Your task to perform on an android device: set the timer Image 0: 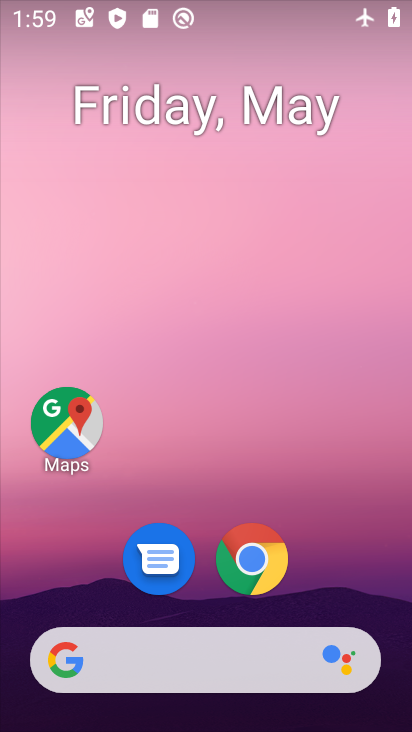
Step 0: drag from (325, 508) to (358, 153)
Your task to perform on an android device: set the timer Image 1: 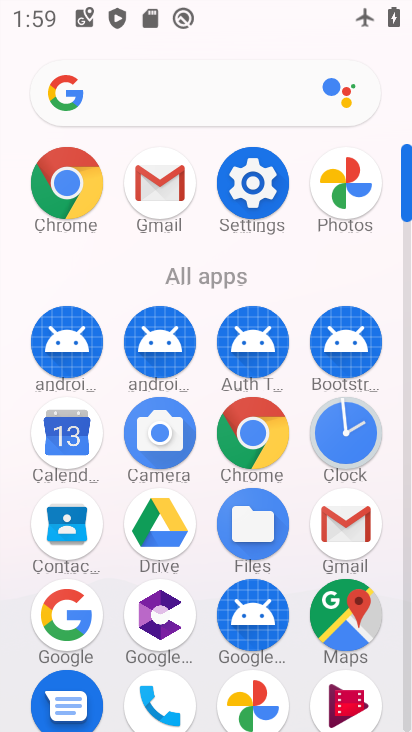
Step 1: click (350, 444)
Your task to perform on an android device: set the timer Image 2: 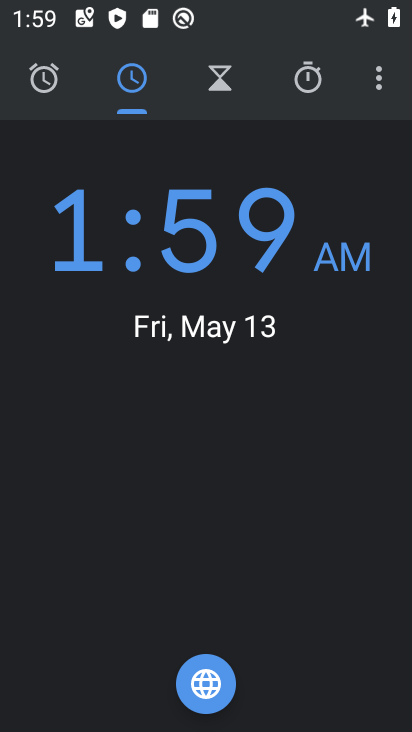
Step 2: click (222, 88)
Your task to perform on an android device: set the timer Image 3: 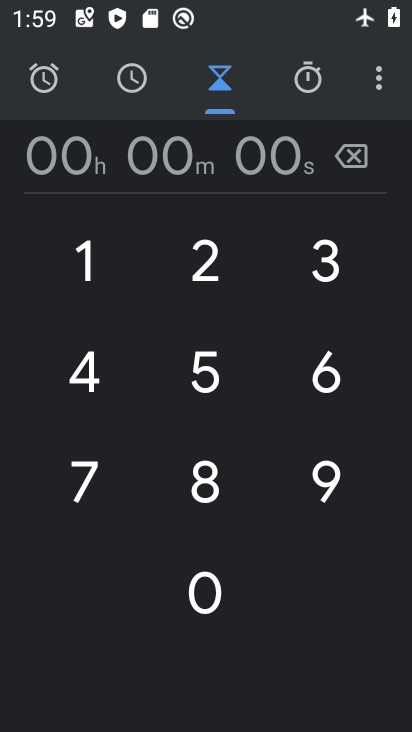
Step 3: click (201, 382)
Your task to perform on an android device: set the timer Image 4: 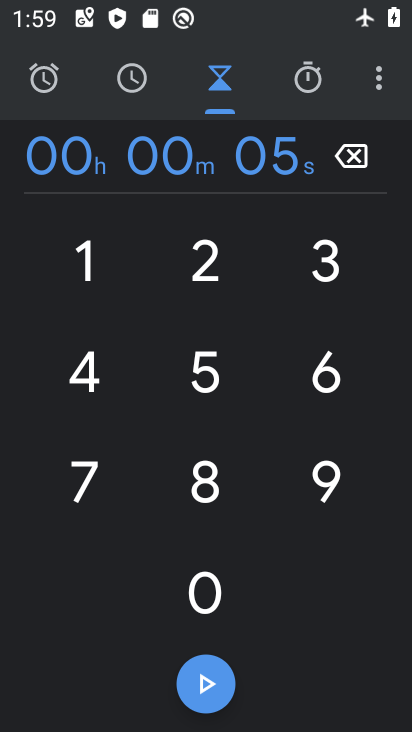
Step 4: click (313, 289)
Your task to perform on an android device: set the timer Image 5: 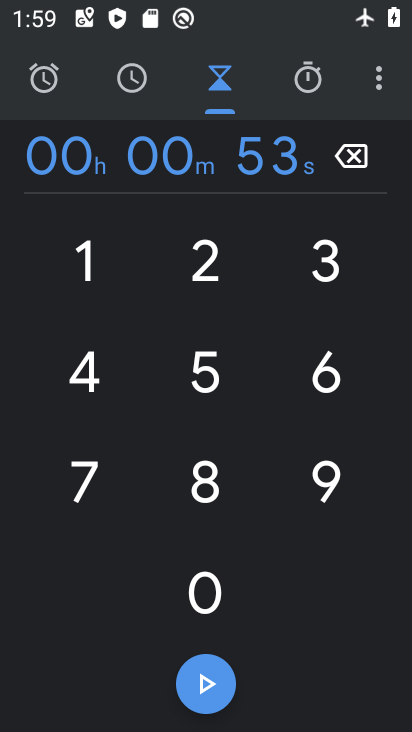
Step 5: click (331, 386)
Your task to perform on an android device: set the timer Image 6: 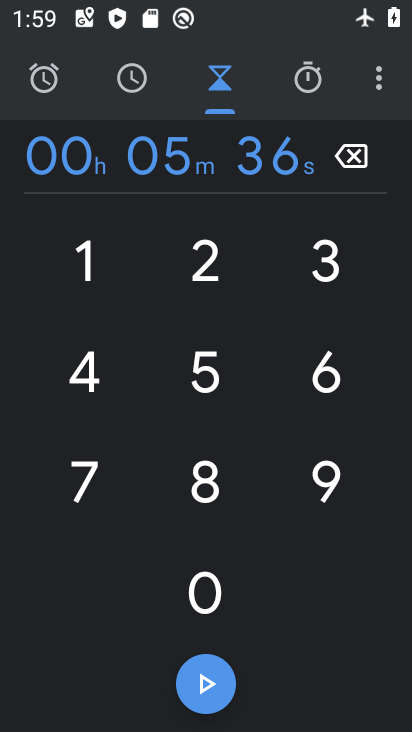
Step 6: click (230, 286)
Your task to perform on an android device: set the timer Image 7: 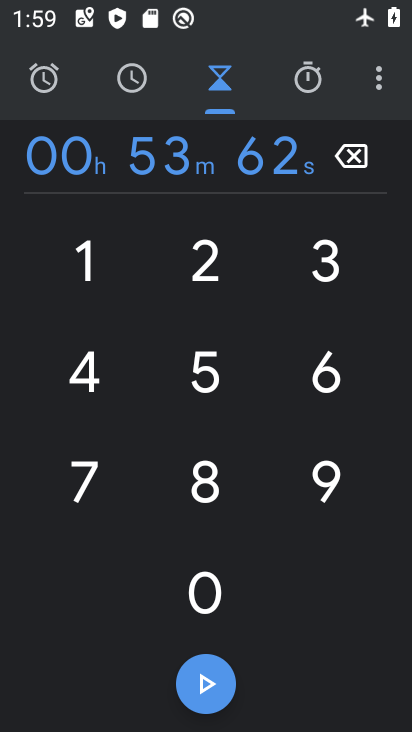
Step 7: click (220, 686)
Your task to perform on an android device: set the timer Image 8: 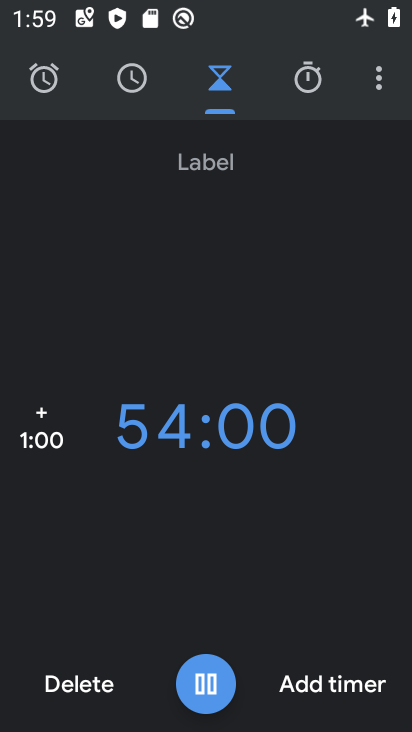
Step 8: task complete